Your task to perform on an android device: Open the calendar app, open the side menu, and click the "Day" option Image 0: 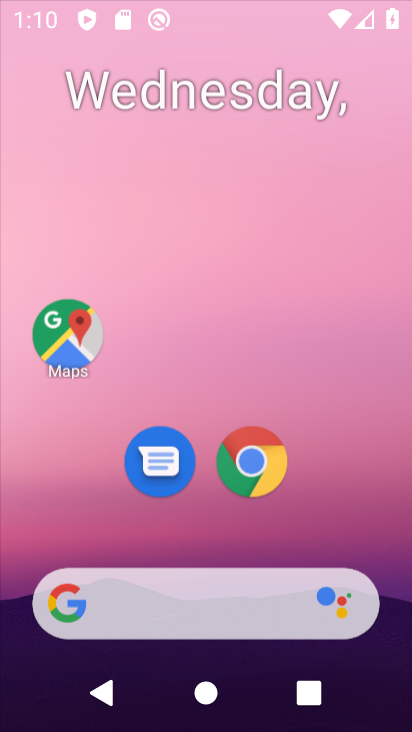
Step 0: click (181, 620)
Your task to perform on an android device: Open the calendar app, open the side menu, and click the "Day" option Image 1: 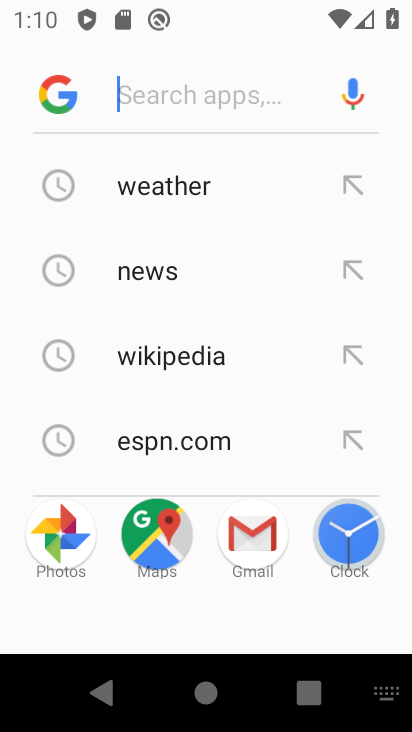
Step 1: press back button
Your task to perform on an android device: Open the calendar app, open the side menu, and click the "Day" option Image 2: 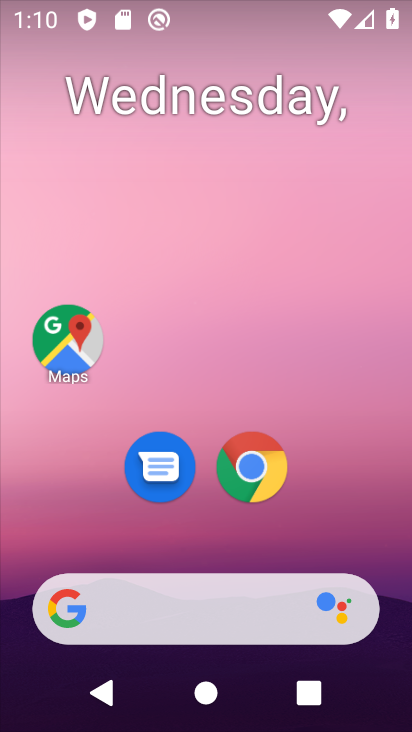
Step 2: drag from (56, 542) to (166, 18)
Your task to perform on an android device: Open the calendar app, open the side menu, and click the "Day" option Image 3: 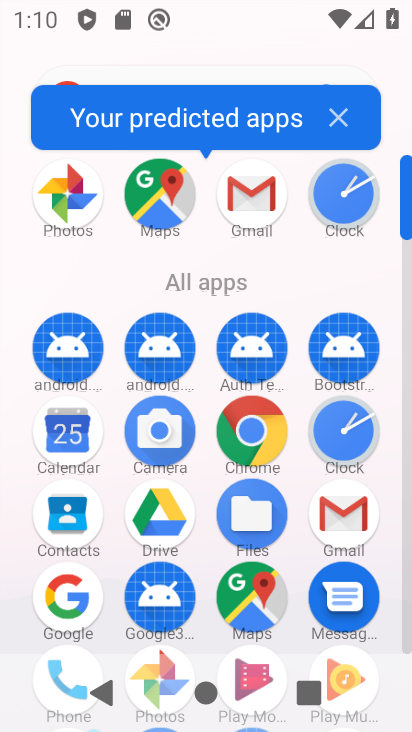
Step 3: click (67, 437)
Your task to perform on an android device: Open the calendar app, open the side menu, and click the "Day" option Image 4: 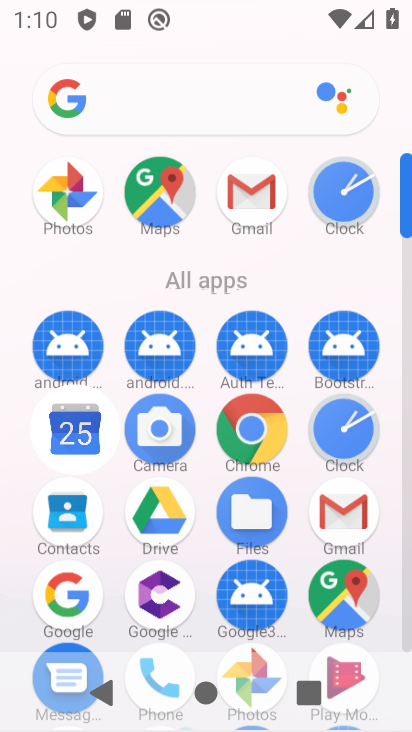
Step 4: click (91, 443)
Your task to perform on an android device: Open the calendar app, open the side menu, and click the "Day" option Image 5: 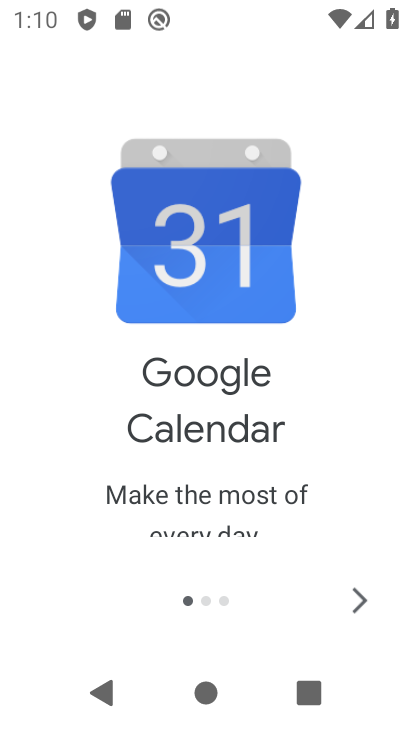
Step 5: click (380, 607)
Your task to perform on an android device: Open the calendar app, open the side menu, and click the "Day" option Image 6: 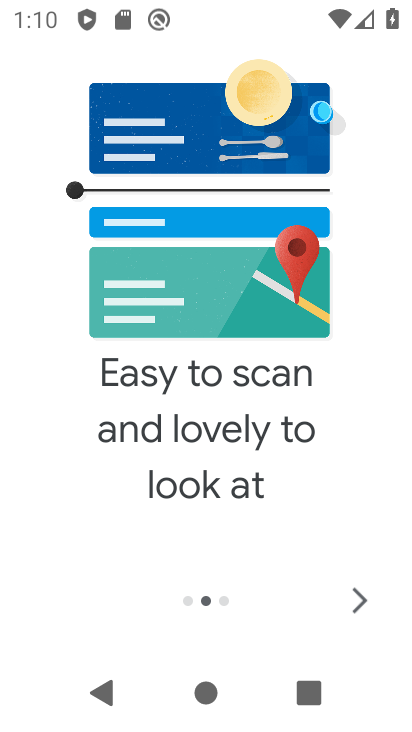
Step 6: click (364, 598)
Your task to perform on an android device: Open the calendar app, open the side menu, and click the "Day" option Image 7: 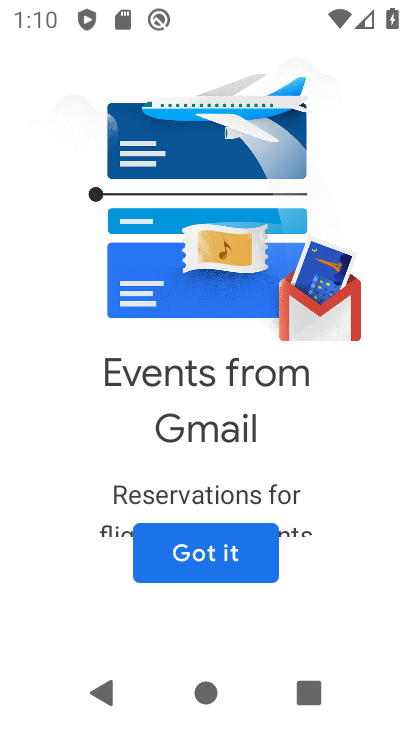
Step 7: click (180, 555)
Your task to perform on an android device: Open the calendar app, open the side menu, and click the "Day" option Image 8: 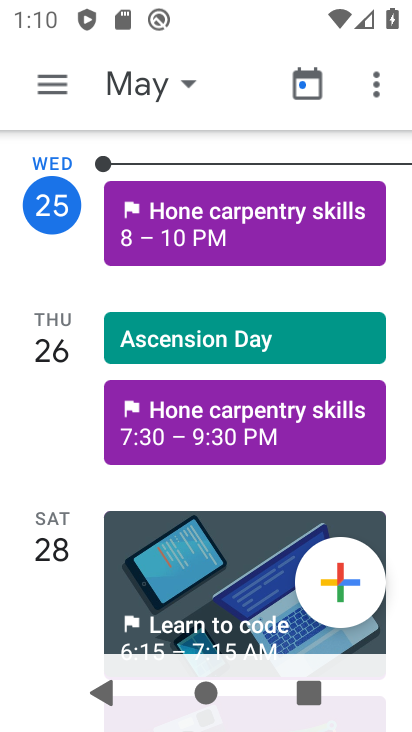
Step 8: click (52, 76)
Your task to perform on an android device: Open the calendar app, open the side menu, and click the "Day" option Image 9: 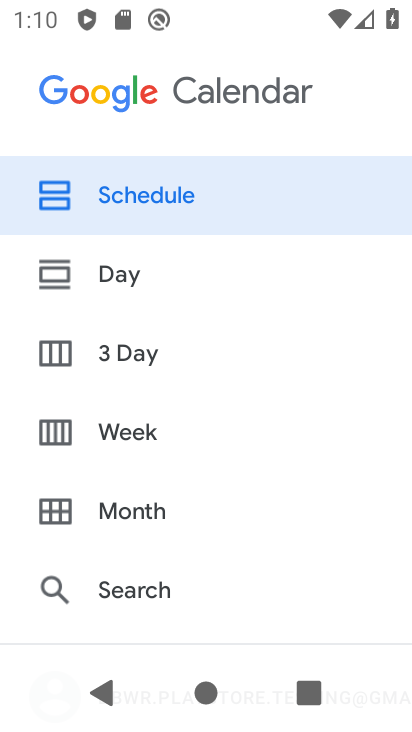
Step 9: click (145, 290)
Your task to perform on an android device: Open the calendar app, open the side menu, and click the "Day" option Image 10: 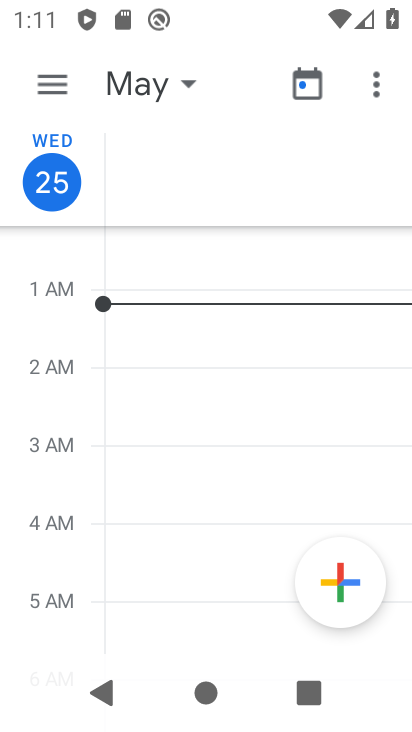
Step 10: task complete